Your task to perform on an android device: visit the assistant section in the google photos Image 0: 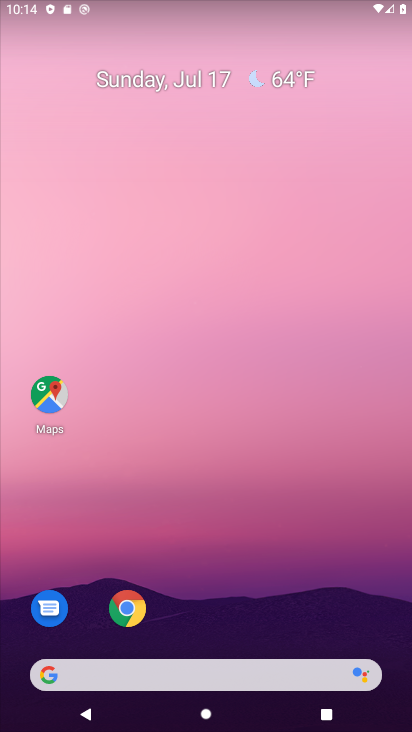
Step 0: drag from (385, 640) to (284, 168)
Your task to perform on an android device: visit the assistant section in the google photos Image 1: 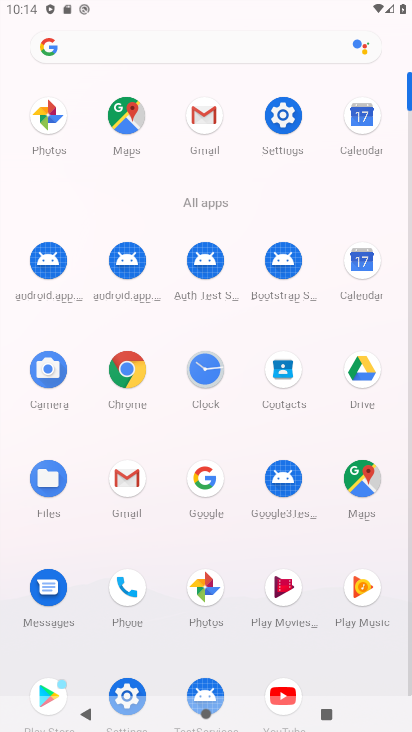
Step 1: click (197, 596)
Your task to perform on an android device: visit the assistant section in the google photos Image 2: 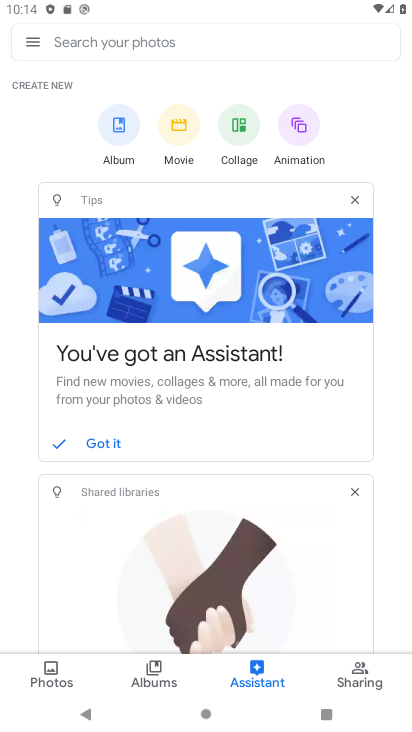
Step 2: click (265, 681)
Your task to perform on an android device: visit the assistant section in the google photos Image 3: 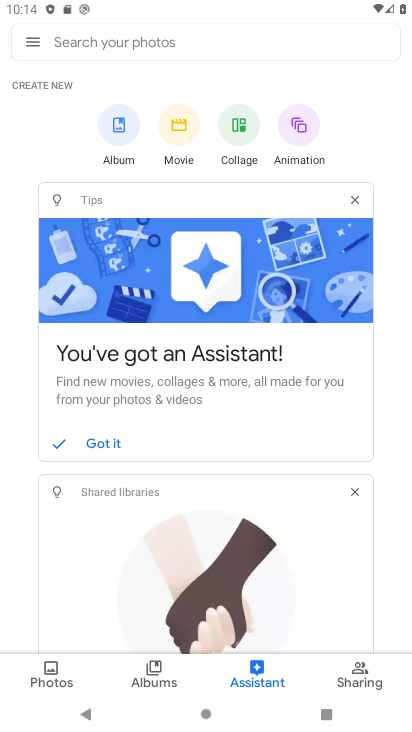
Step 3: click (172, 134)
Your task to perform on an android device: visit the assistant section in the google photos Image 4: 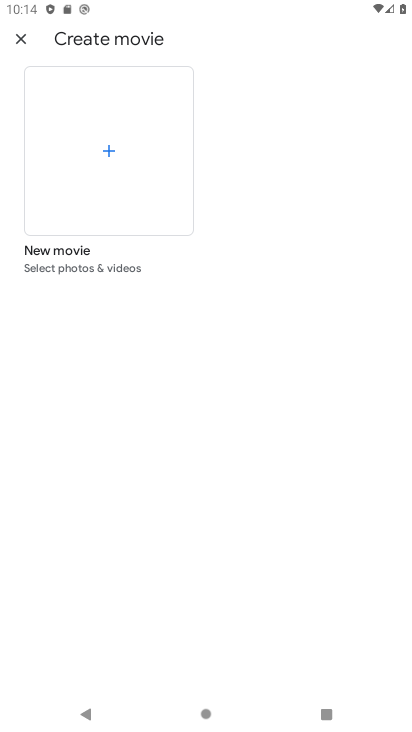
Step 4: click (20, 36)
Your task to perform on an android device: visit the assistant section in the google photos Image 5: 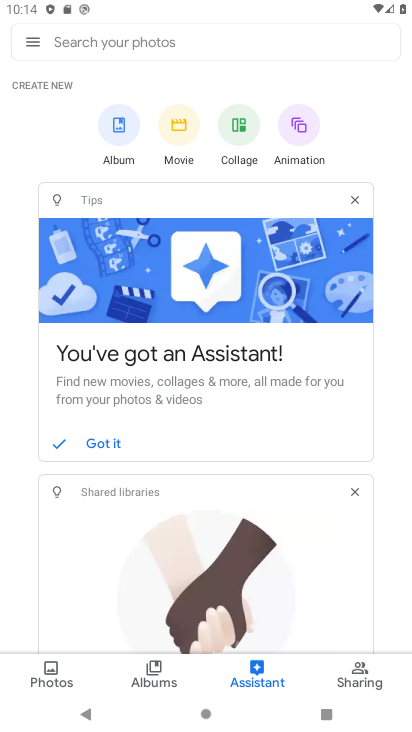
Step 5: click (241, 131)
Your task to perform on an android device: visit the assistant section in the google photos Image 6: 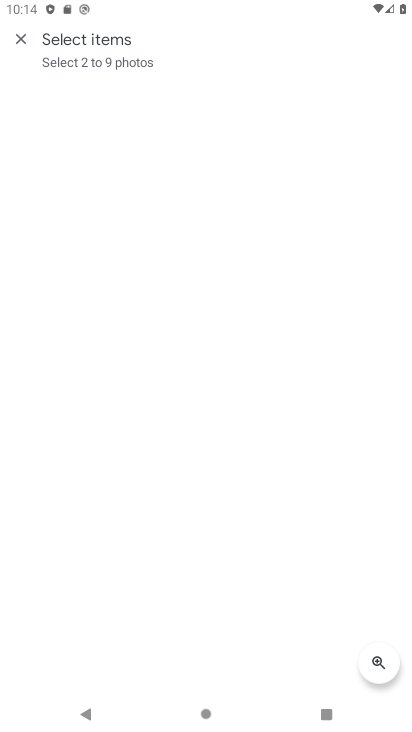
Step 6: click (19, 35)
Your task to perform on an android device: visit the assistant section in the google photos Image 7: 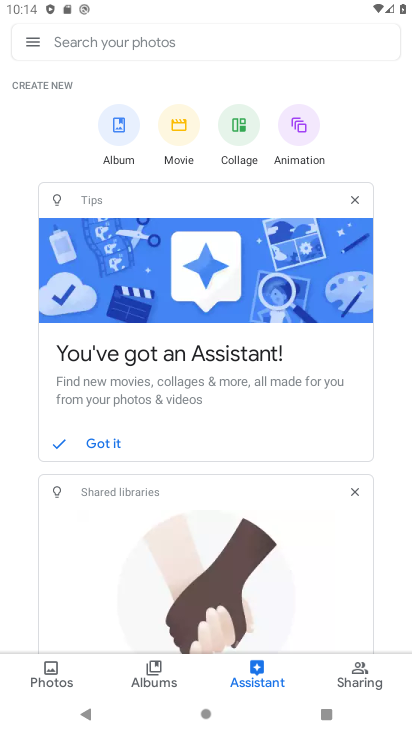
Step 7: click (304, 119)
Your task to perform on an android device: visit the assistant section in the google photos Image 8: 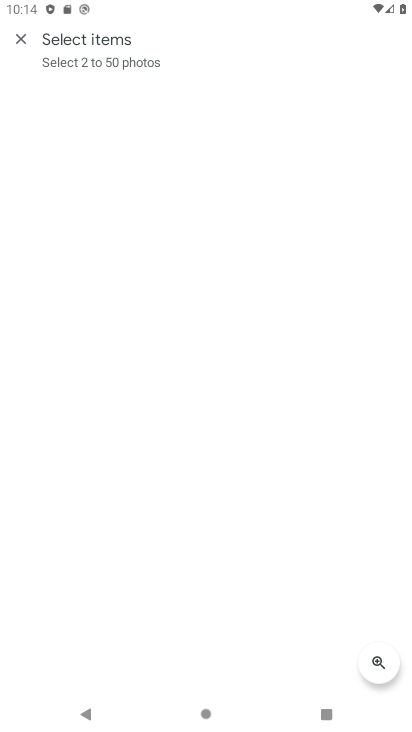
Step 8: click (16, 38)
Your task to perform on an android device: visit the assistant section in the google photos Image 9: 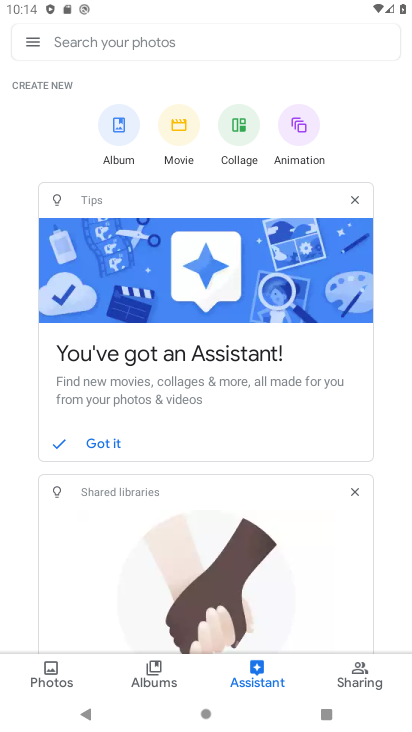
Step 9: task complete